Your task to perform on an android device: Go to ESPN.com Image 0: 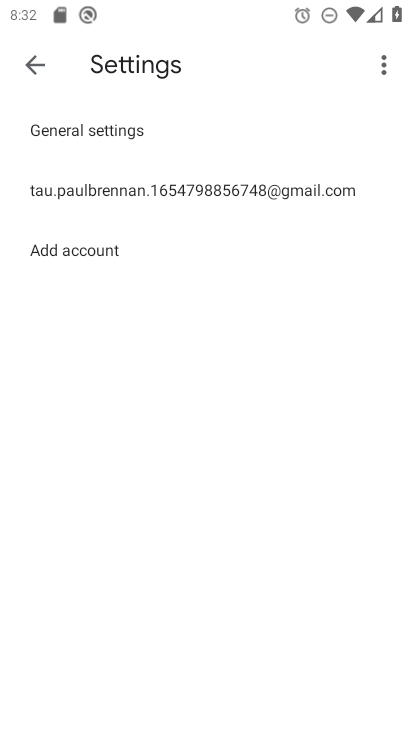
Step 0: press home button
Your task to perform on an android device: Go to ESPN.com Image 1: 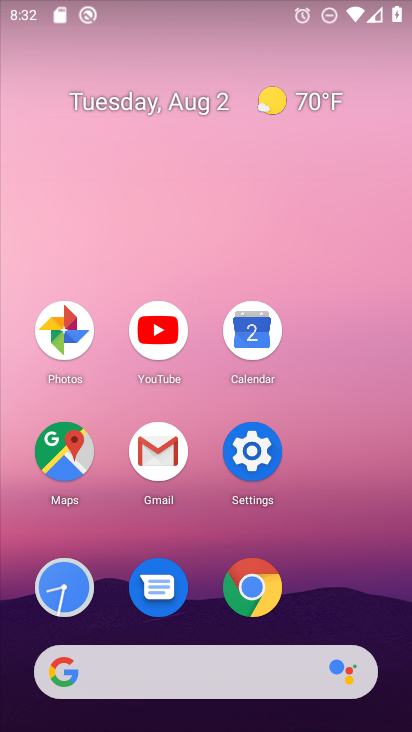
Step 1: click (251, 586)
Your task to perform on an android device: Go to ESPN.com Image 2: 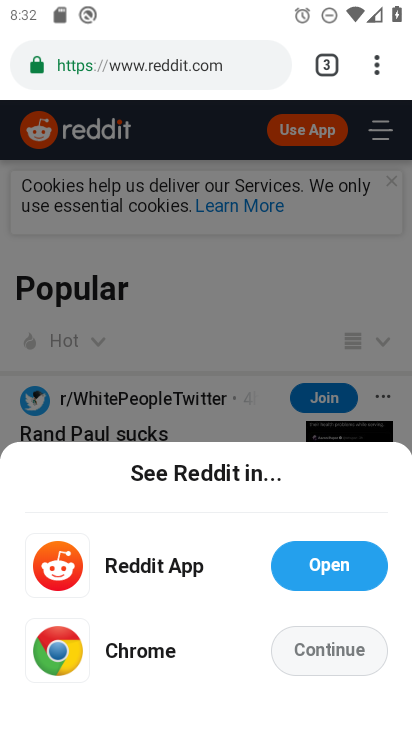
Step 2: click (219, 331)
Your task to perform on an android device: Go to ESPN.com Image 3: 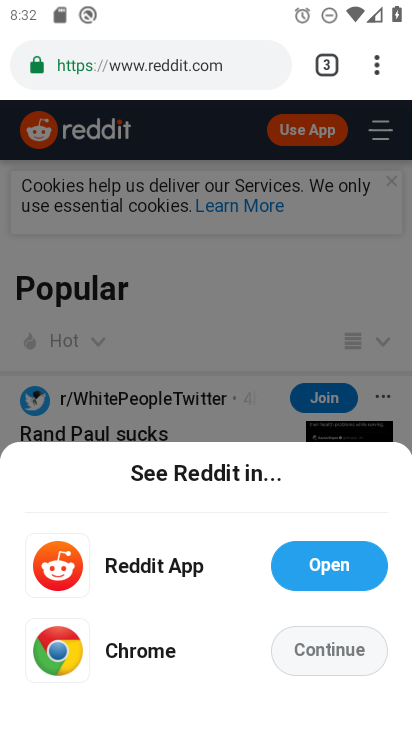
Step 3: click (376, 65)
Your task to perform on an android device: Go to ESPN.com Image 4: 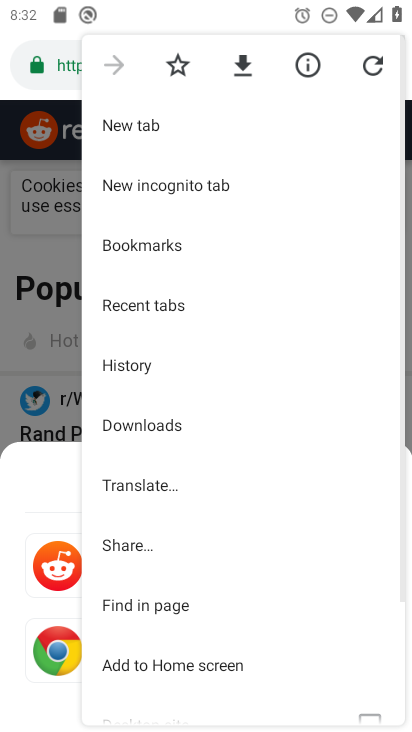
Step 4: click (148, 122)
Your task to perform on an android device: Go to ESPN.com Image 5: 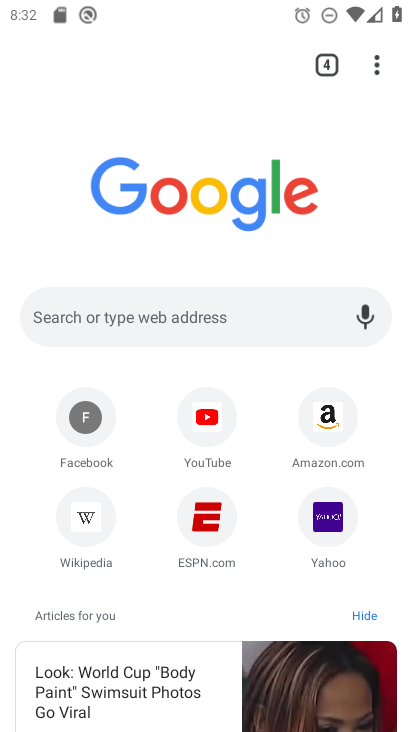
Step 5: click (206, 512)
Your task to perform on an android device: Go to ESPN.com Image 6: 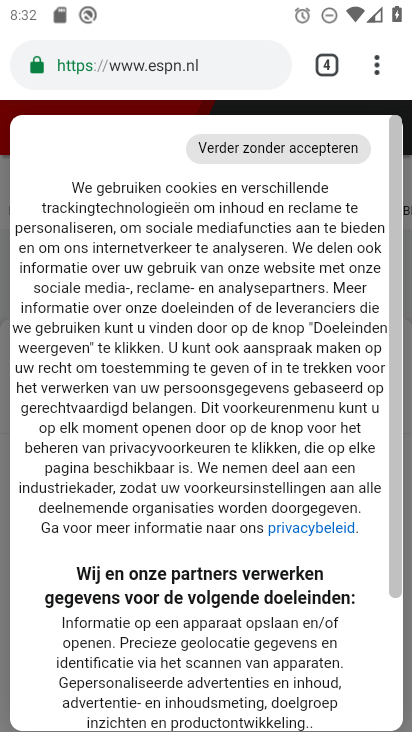
Step 6: drag from (258, 527) to (193, 5)
Your task to perform on an android device: Go to ESPN.com Image 7: 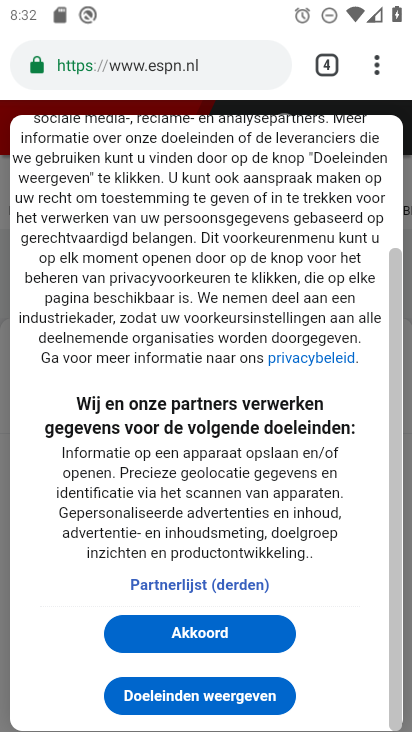
Step 7: drag from (327, 583) to (324, 316)
Your task to perform on an android device: Go to ESPN.com Image 8: 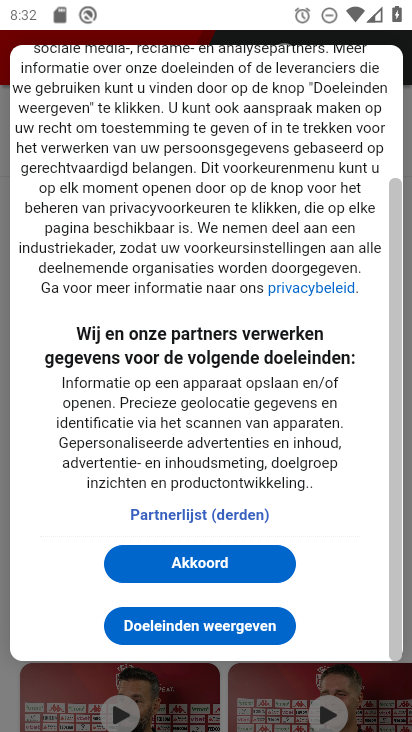
Step 8: click (214, 561)
Your task to perform on an android device: Go to ESPN.com Image 9: 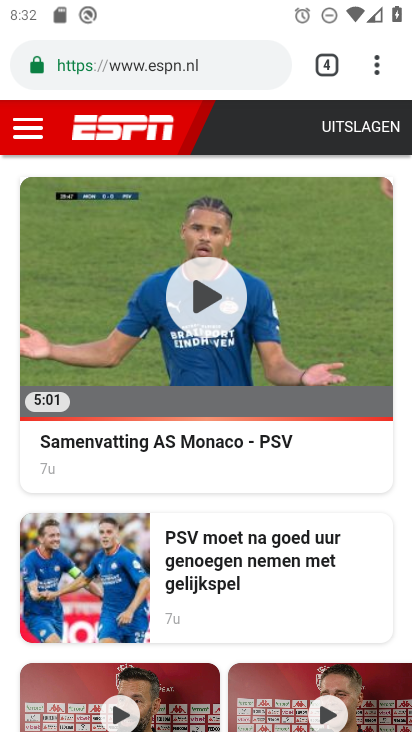
Step 9: task complete